Your task to perform on an android device: toggle notification dots Image 0: 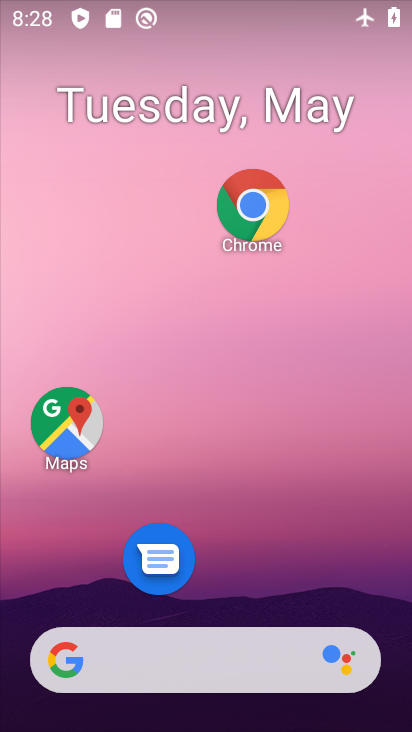
Step 0: drag from (245, 610) to (246, 189)
Your task to perform on an android device: toggle notification dots Image 1: 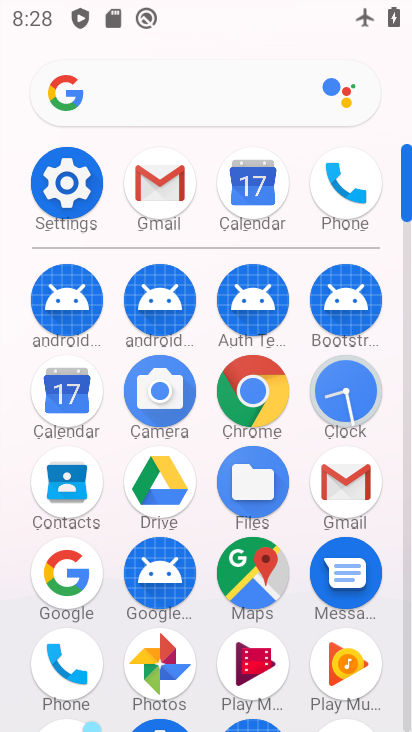
Step 1: click (75, 174)
Your task to perform on an android device: toggle notification dots Image 2: 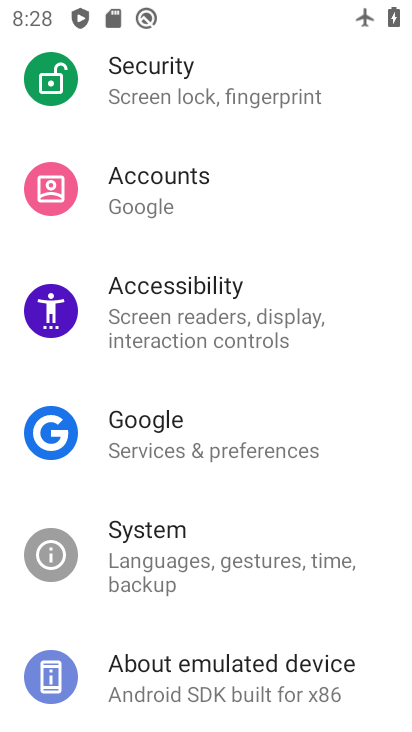
Step 2: drag from (201, 252) to (218, 571)
Your task to perform on an android device: toggle notification dots Image 3: 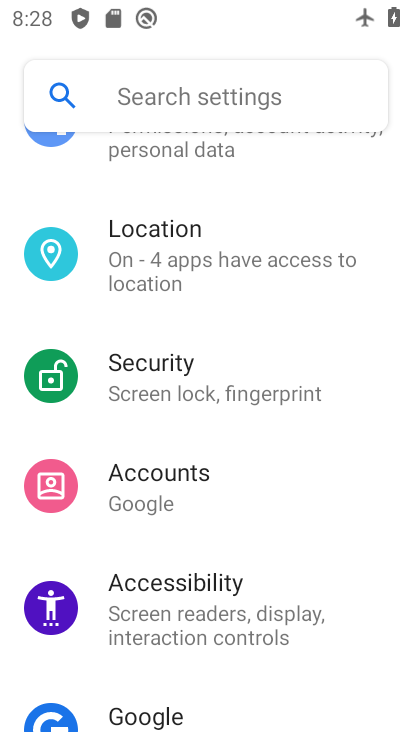
Step 3: click (271, 528)
Your task to perform on an android device: toggle notification dots Image 4: 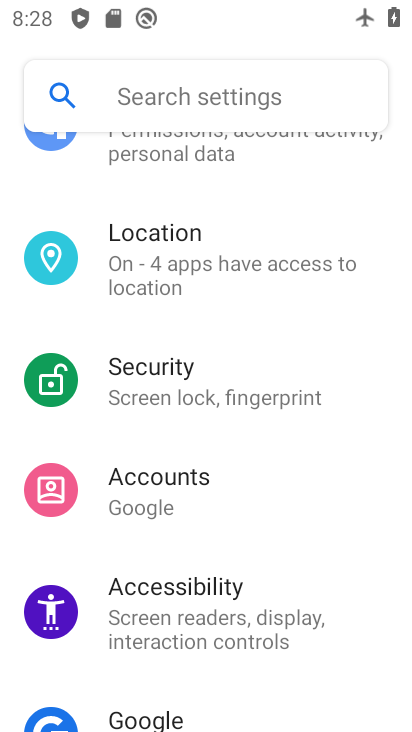
Step 4: drag from (247, 222) to (248, 486)
Your task to perform on an android device: toggle notification dots Image 5: 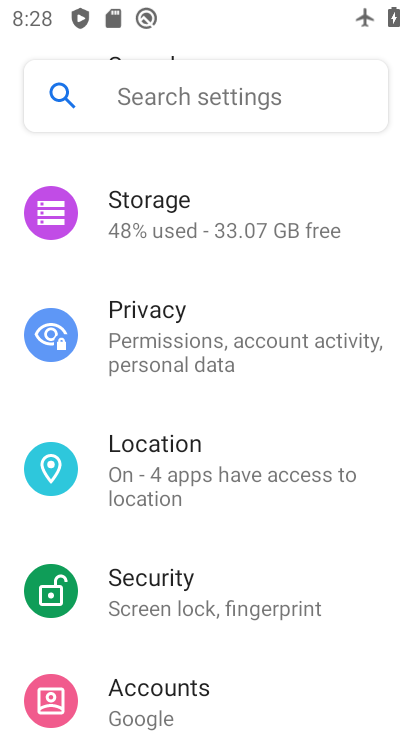
Step 5: drag from (235, 223) to (227, 526)
Your task to perform on an android device: toggle notification dots Image 6: 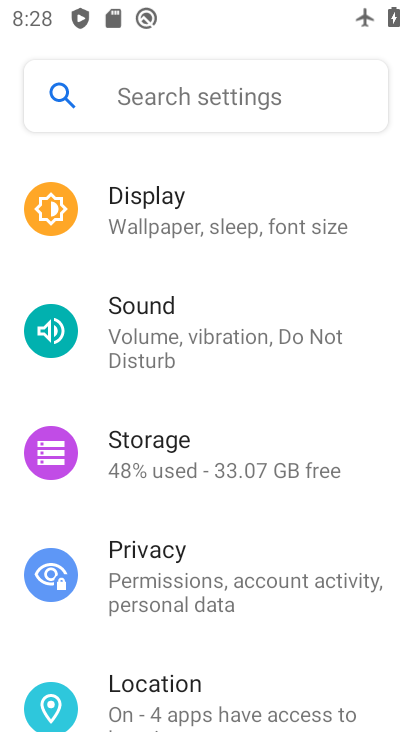
Step 6: drag from (249, 204) to (253, 483)
Your task to perform on an android device: toggle notification dots Image 7: 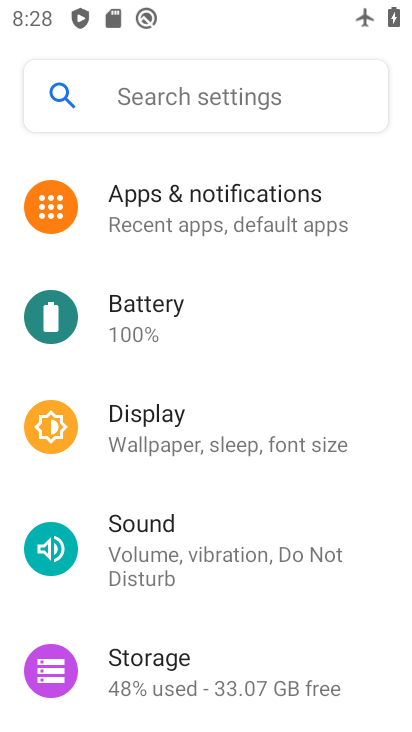
Step 7: click (240, 214)
Your task to perform on an android device: toggle notification dots Image 8: 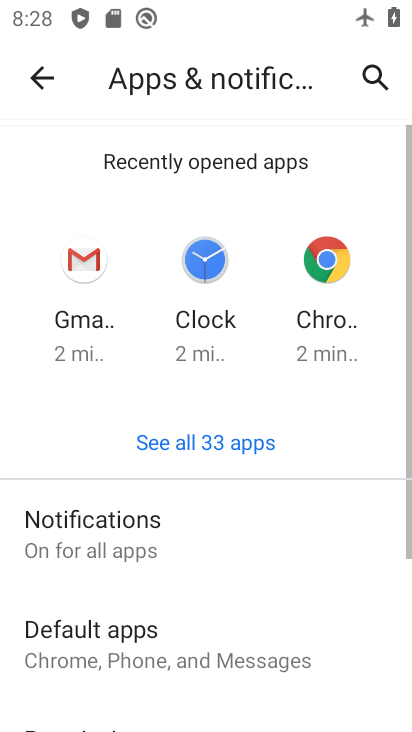
Step 8: click (187, 532)
Your task to perform on an android device: toggle notification dots Image 9: 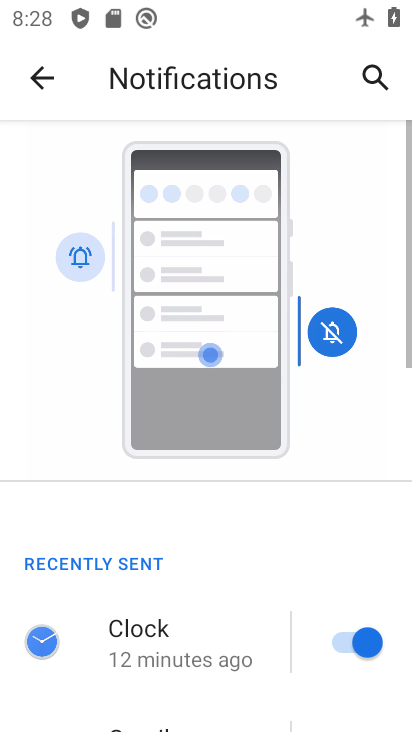
Step 9: drag from (221, 587) to (251, 211)
Your task to perform on an android device: toggle notification dots Image 10: 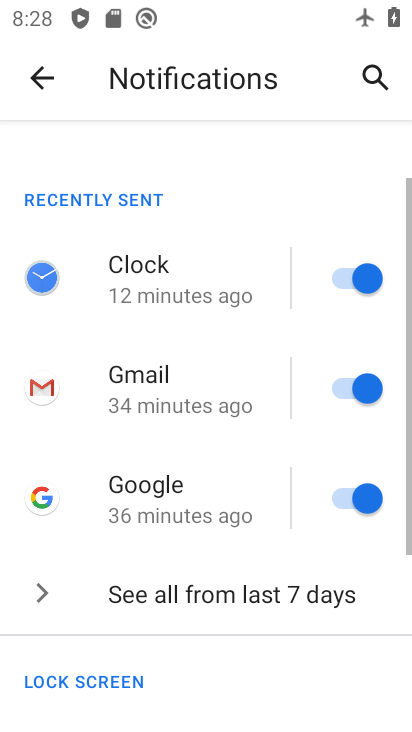
Step 10: drag from (234, 675) to (276, 348)
Your task to perform on an android device: toggle notification dots Image 11: 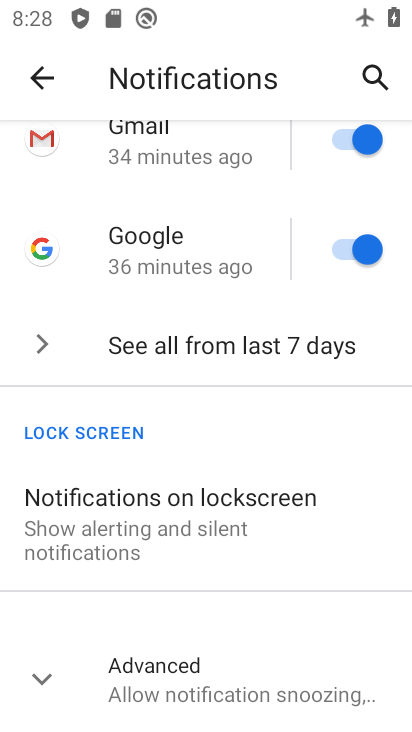
Step 11: drag from (260, 658) to (260, 467)
Your task to perform on an android device: toggle notification dots Image 12: 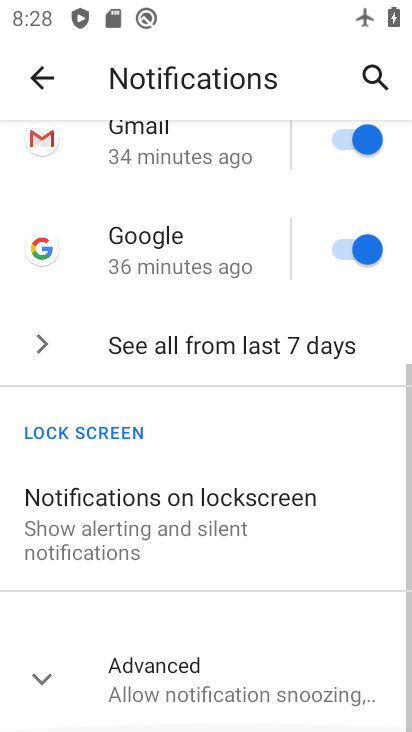
Step 12: click (226, 668)
Your task to perform on an android device: toggle notification dots Image 13: 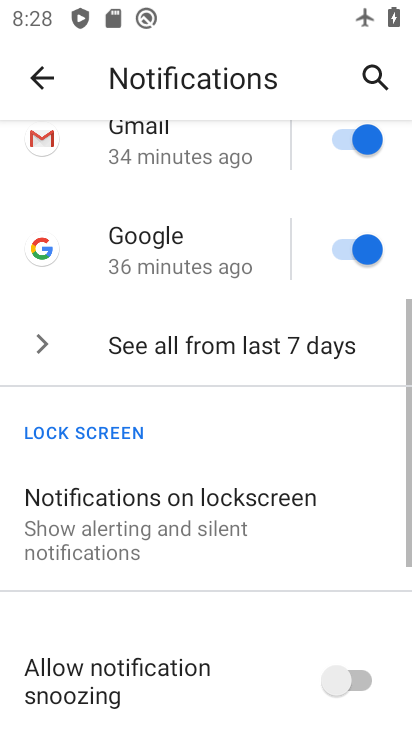
Step 13: drag from (226, 668) to (236, 336)
Your task to perform on an android device: toggle notification dots Image 14: 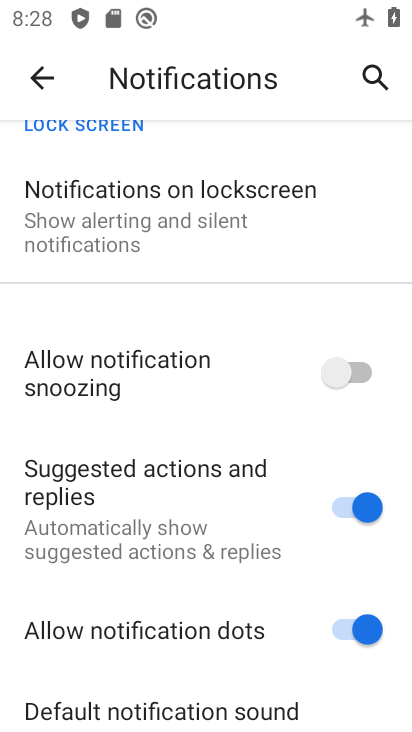
Step 14: click (344, 629)
Your task to perform on an android device: toggle notification dots Image 15: 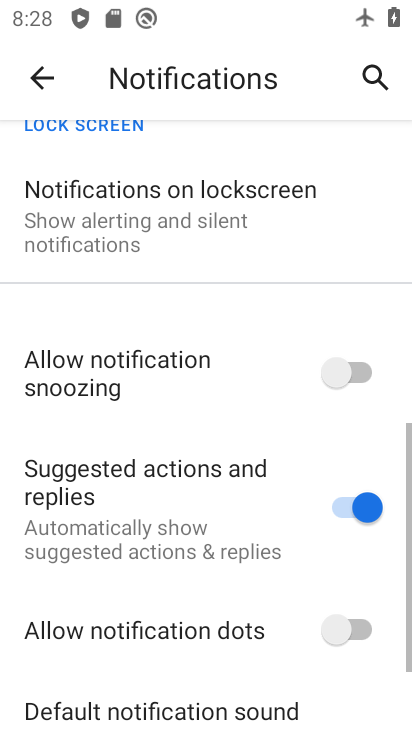
Step 15: task complete